Your task to perform on an android device: search for starred emails in the gmail app Image 0: 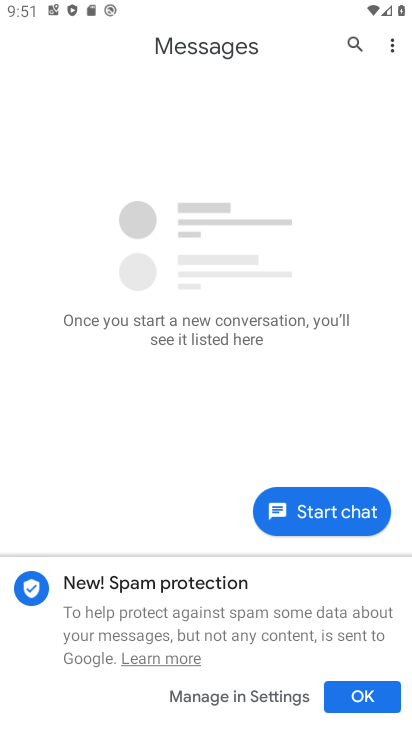
Step 0: press home button
Your task to perform on an android device: search for starred emails in the gmail app Image 1: 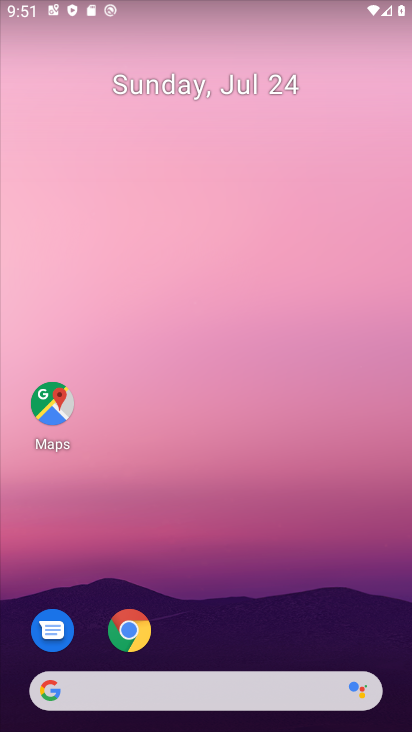
Step 1: drag from (202, 633) to (148, 65)
Your task to perform on an android device: search for starred emails in the gmail app Image 2: 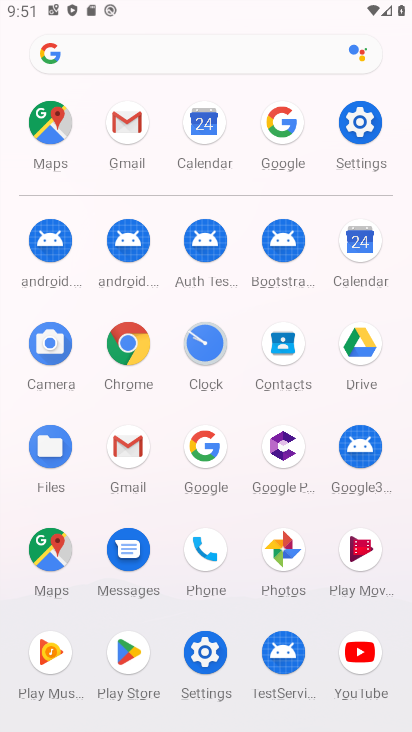
Step 2: click (148, 139)
Your task to perform on an android device: search for starred emails in the gmail app Image 3: 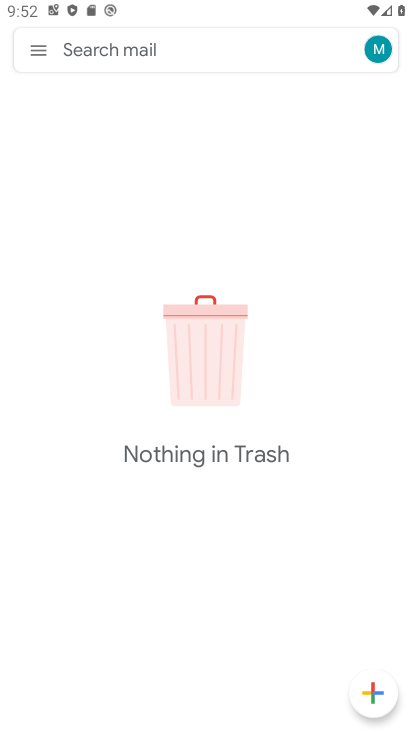
Step 3: click (38, 57)
Your task to perform on an android device: search for starred emails in the gmail app Image 4: 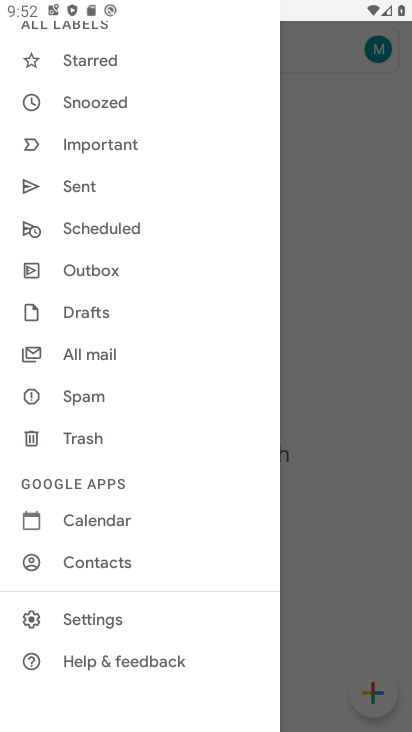
Step 4: click (109, 64)
Your task to perform on an android device: search for starred emails in the gmail app Image 5: 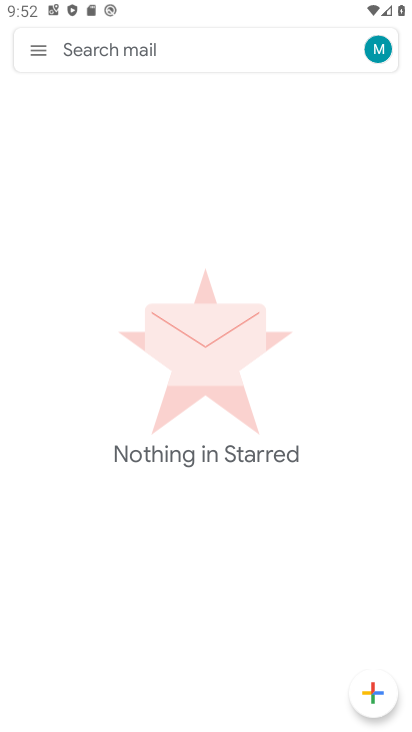
Step 5: task complete